Your task to perform on an android device: change the clock display to digital Image 0: 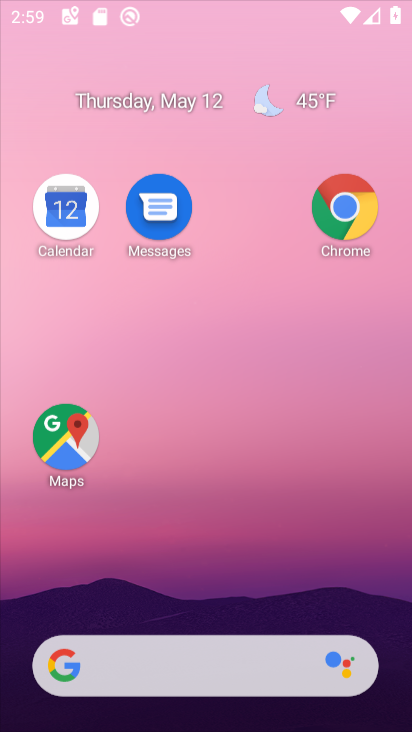
Step 0: drag from (350, 222) to (245, 206)
Your task to perform on an android device: change the clock display to digital Image 1: 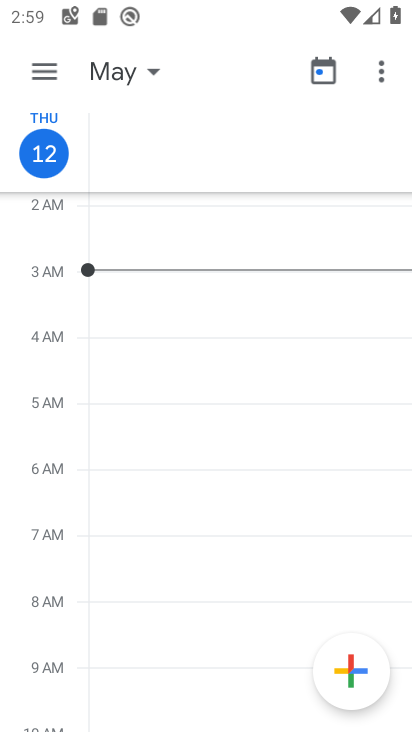
Step 1: press home button
Your task to perform on an android device: change the clock display to digital Image 2: 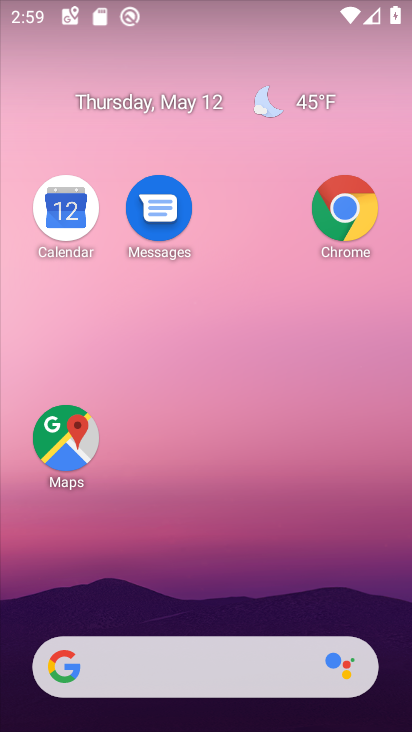
Step 2: drag from (225, 556) to (262, 190)
Your task to perform on an android device: change the clock display to digital Image 3: 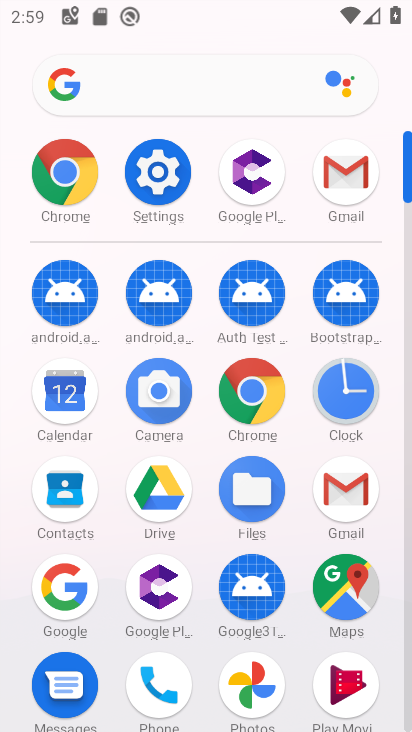
Step 3: click (328, 384)
Your task to perform on an android device: change the clock display to digital Image 4: 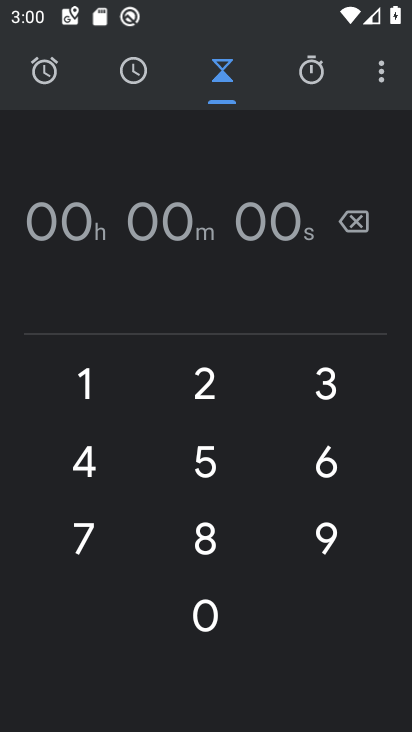
Step 4: click (381, 83)
Your task to perform on an android device: change the clock display to digital Image 5: 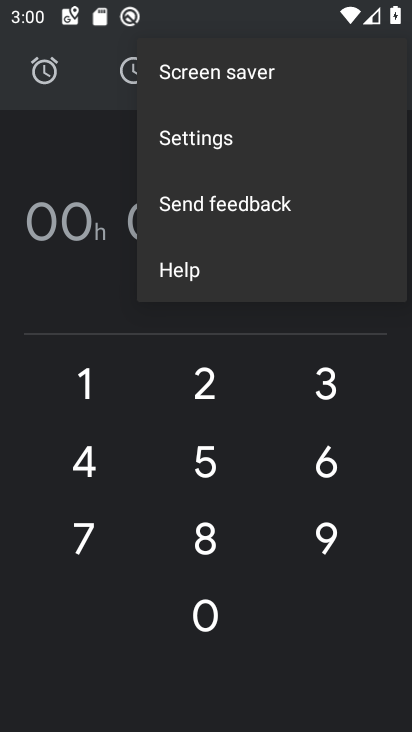
Step 5: click (237, 150)
Your task to perform on an android device: change the clock display to digital Image 6: 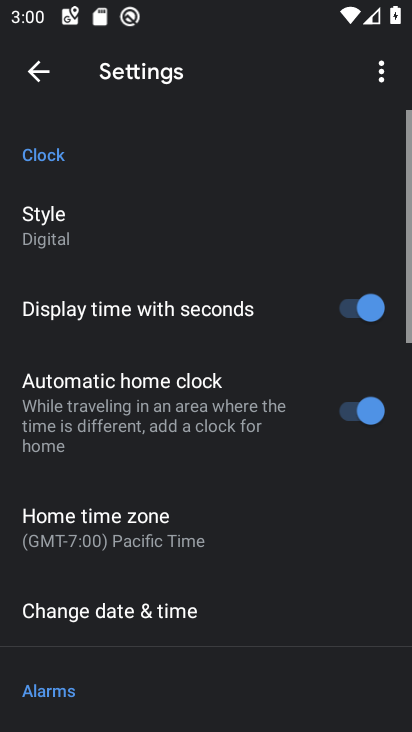
Step 6: drag from (217, 678) to (298, 163)
Your task to perform on an android device: change the clock display to digital Image 7: 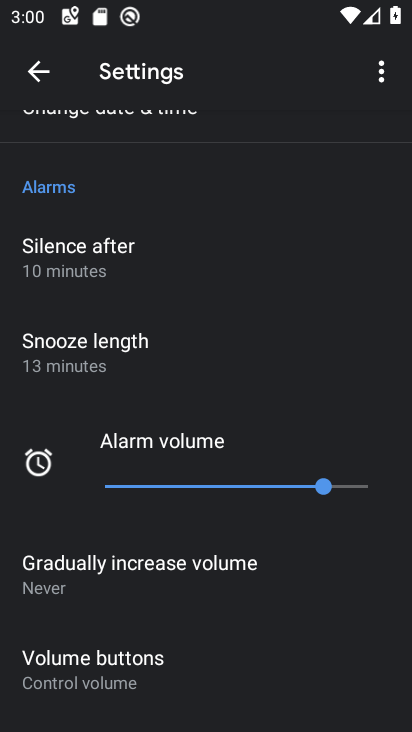
Step 7: drag from (207, 161) to (248, 500)
Your task to perform on an android device: change the clock display to digital Image 8: 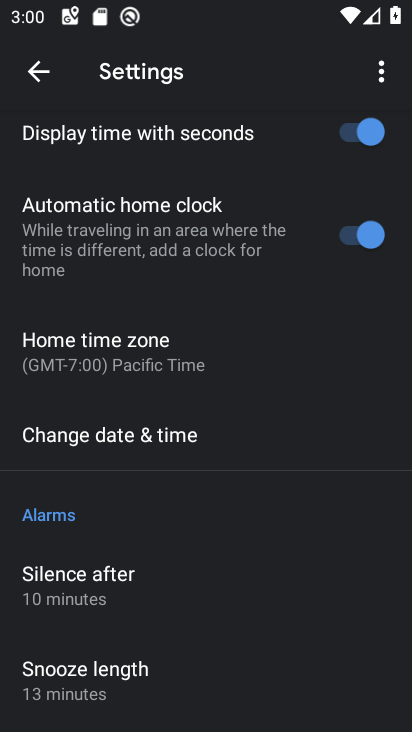
Step 8: drag from (225, 331) to (200, 651)
Your task to perform on an android device: change the clock display to digital Image 9: 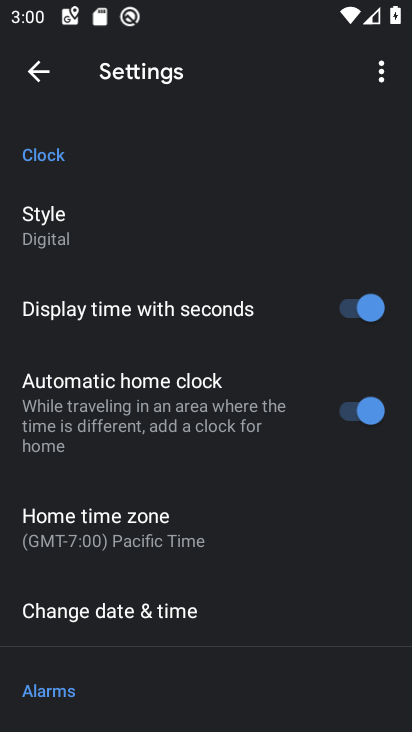
Step 9: drag from (250, 640) to (281, 192)
Your task to perform on an android device: change the clock display to digital Image 10: 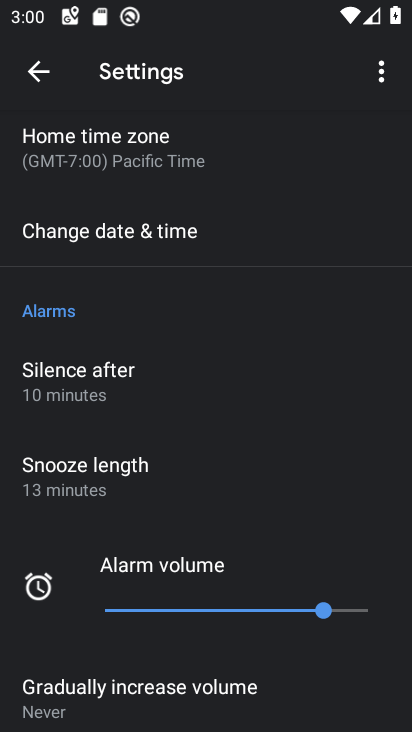
Step 10: drag from (202, 512) to (294, 216)
Your task to perform on an android device: change the clock display to digital Image 11: 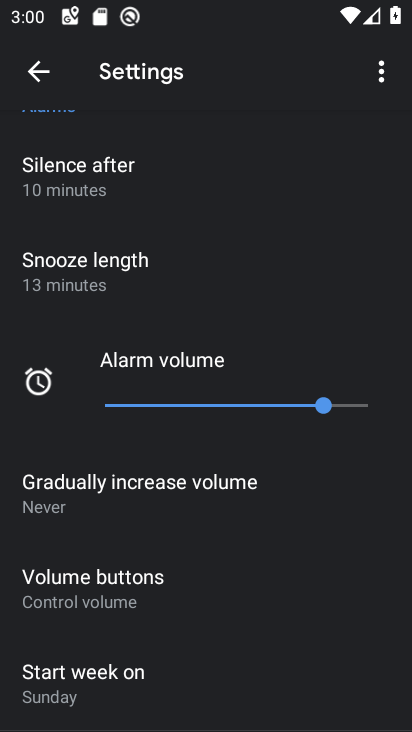
Step 11: drag from (183, 613) to (261, 198)
Your task to perform on an android device: change the clock display to digital Image 12: 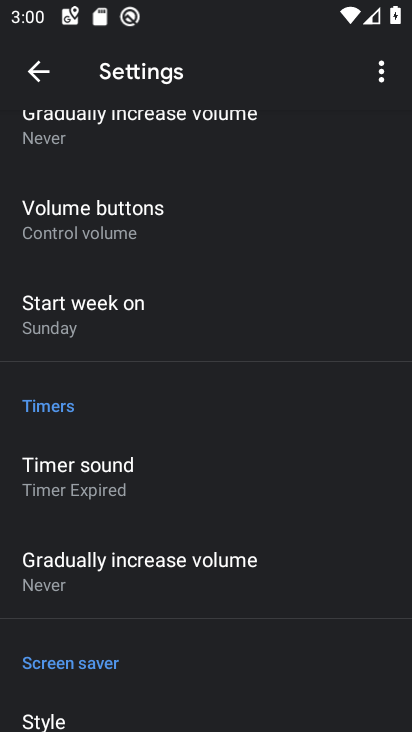
Step 12: drag from (207, 568) to (267, 192)
Your task to perform on an android device: change the clock display to digital Image 13: 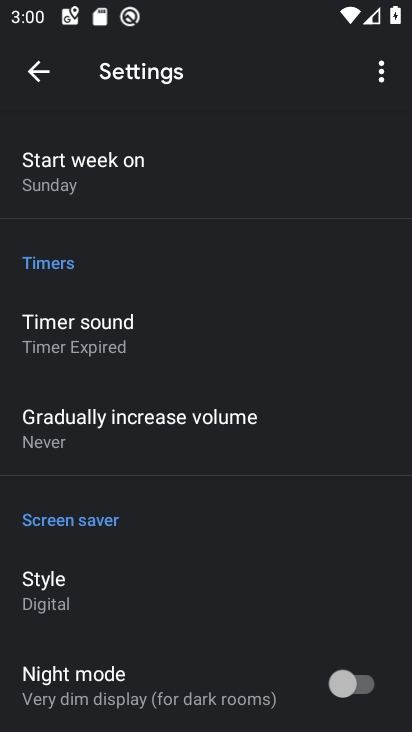
Step 13: drag from (227, 211) to (328, 720)
Your task to perform on an android device: change the clock display to digital Image 14: 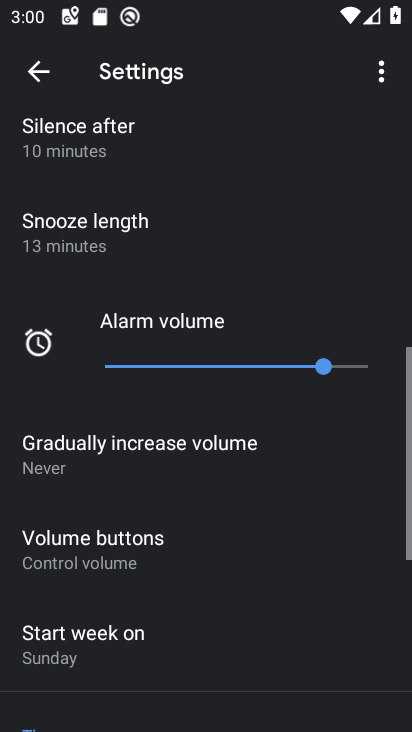
Step 14: drag from (196, 136) to (295, 724)
Your task to perform on an android device: change the clock display to digital Image 15: 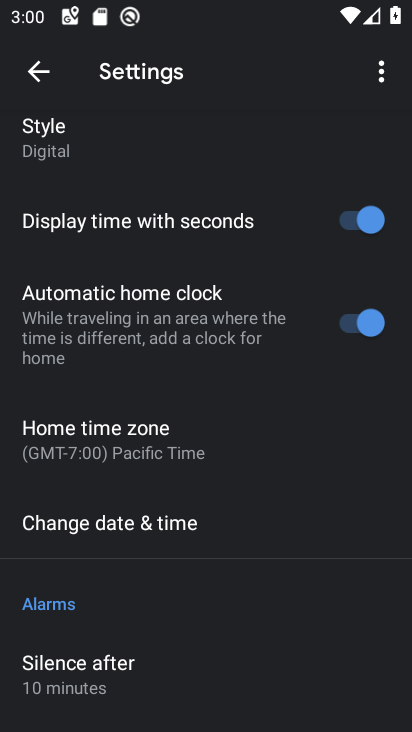
Step 15: click (92, 144)
Your task to perform on an android device: change the clock display to digital Image 16: 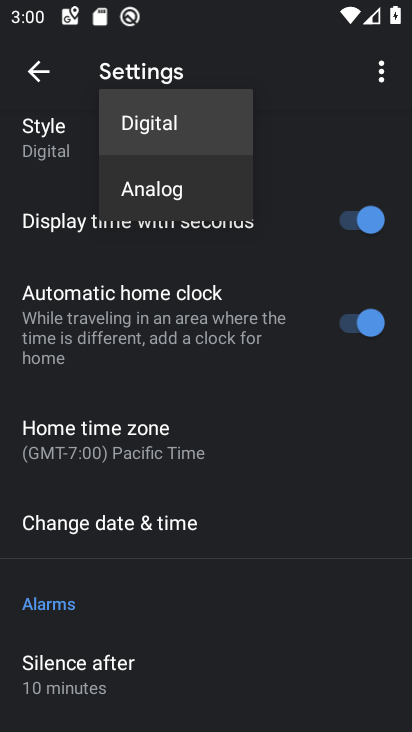
Step 16: task complete